Your task to perform on an android device: Open calendar and show me the first week of next month Image 0: 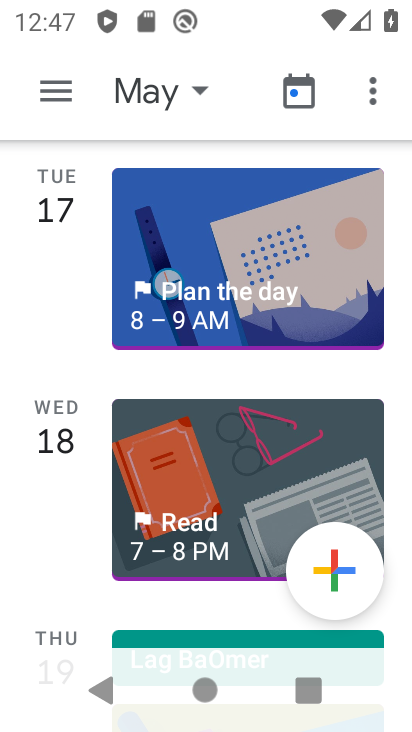
Step 0: press home button
Your task to perform on an android device: Open calendar and show me the first week of next month Image 1: 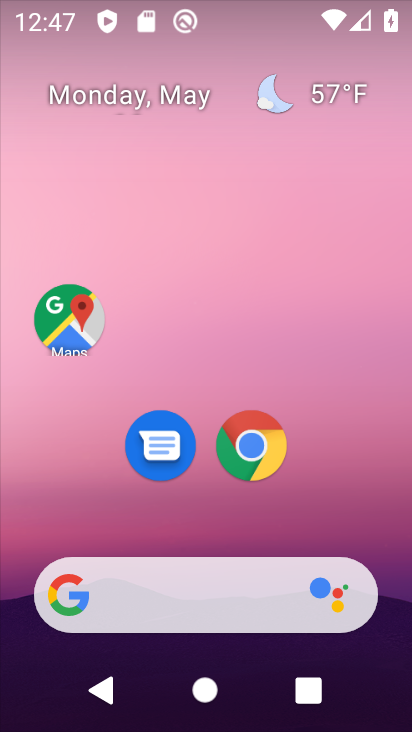
Step 1: drag from (375, 656) to (283, 41)
Your task to perform on an android device: Open calendar and show me the first week of next month Image 2: 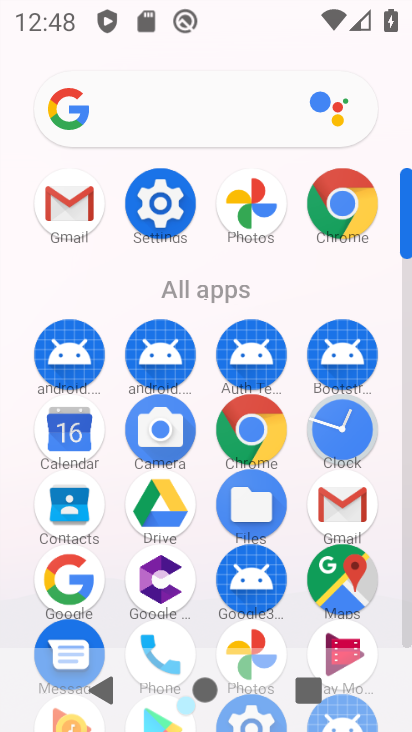
Step 2: click (67, 437)
Your task to perform on an android device: Open calendar and show me the first week of next month Image 3: 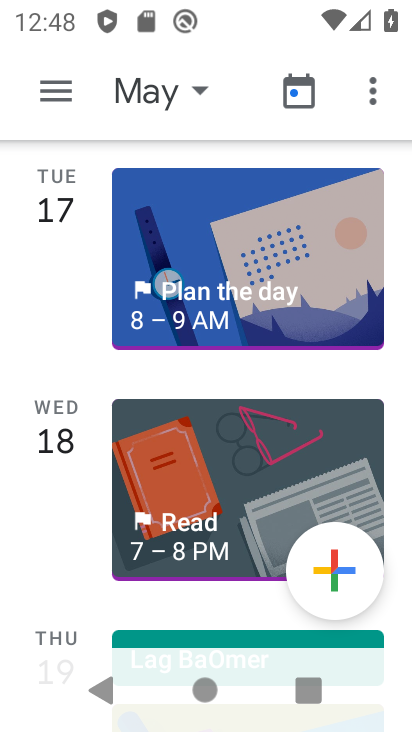
Step 3: click (117, 97)
Your task to perform on an android device: Open calendar and show me the first week of next month Image 4: 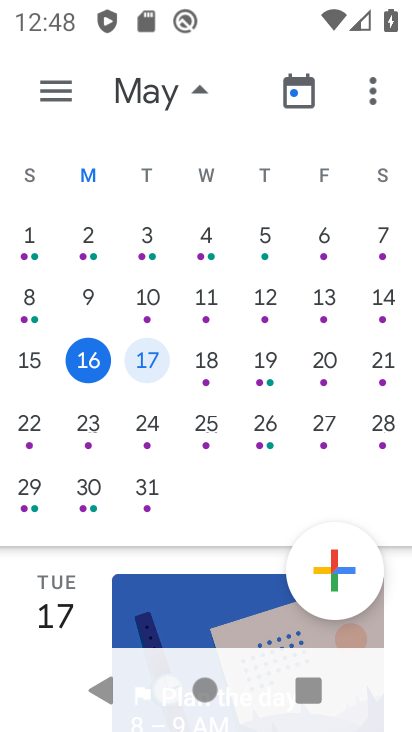
Step 4: drag from (368, 329) to (93, 318)
Your task to perform on an android device: Open calendar and show me the first week of next month Image 5: 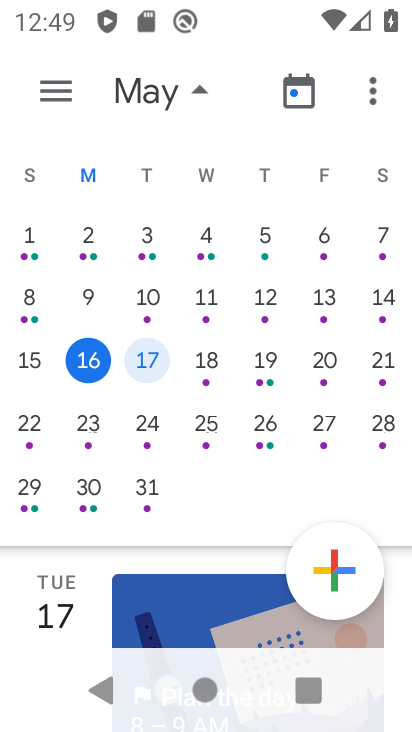
Step 5: drag from (317, 358) to (20, 314)
Your task to perform on an android device: Open calendar and show me the first week of next month Image 6: 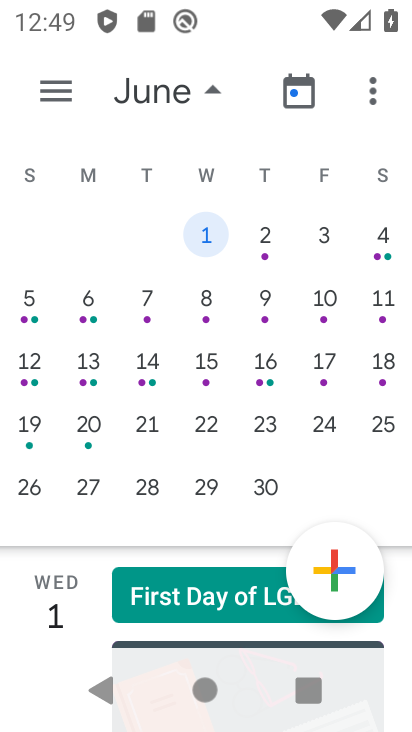
Step 6: click (36, 301)
Your task to perform on an android device: Open calendar and show me the first week of next month Image 7: 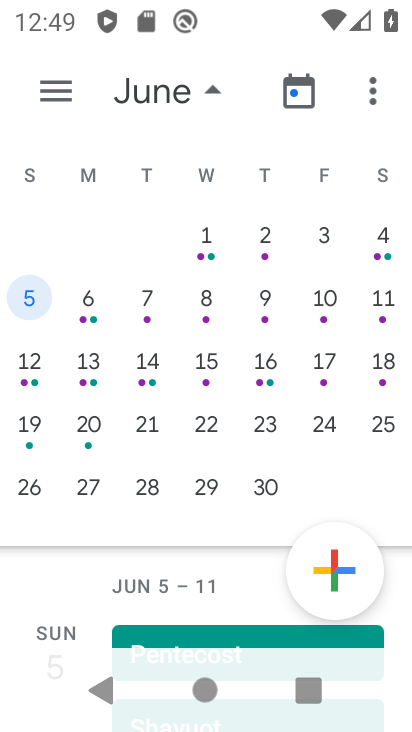
Step 7: task complete